Your task to perform on an android device: Open eBay Image 0: 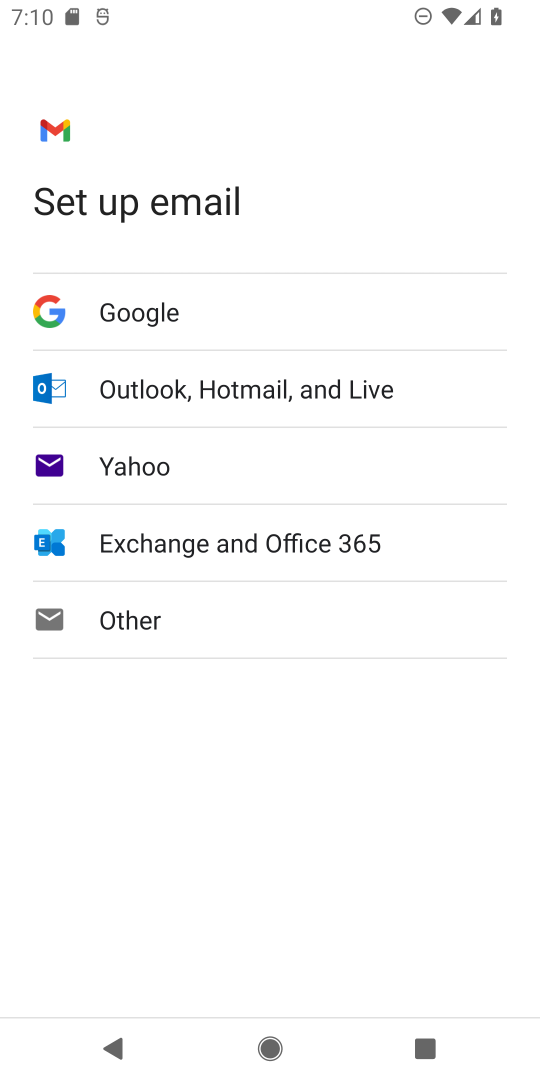
Step 0: press home button
Your task to perform on an android device: Open eBay Image 1: 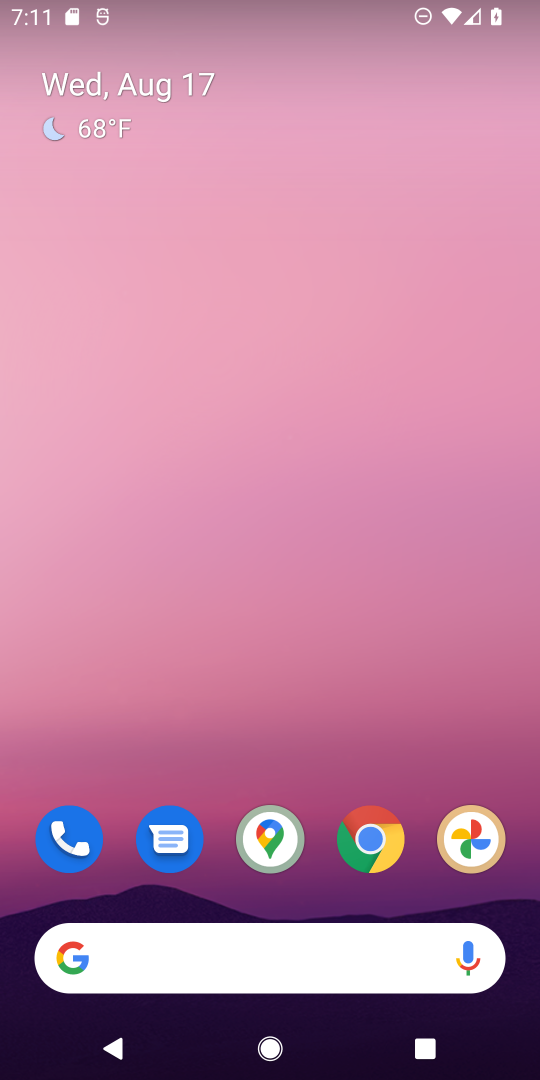
Step 1: click (371, 848)
Your task to perform on an android device: Open eBay Image 2: 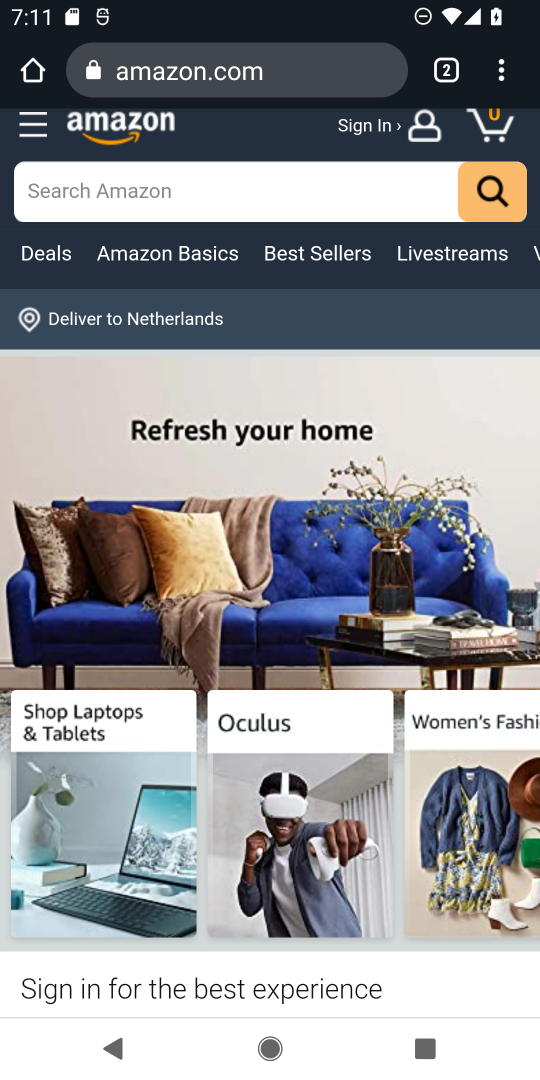
Step 2: click (486, 64)
Your task to perform on an android device: Open eBay Image 3: 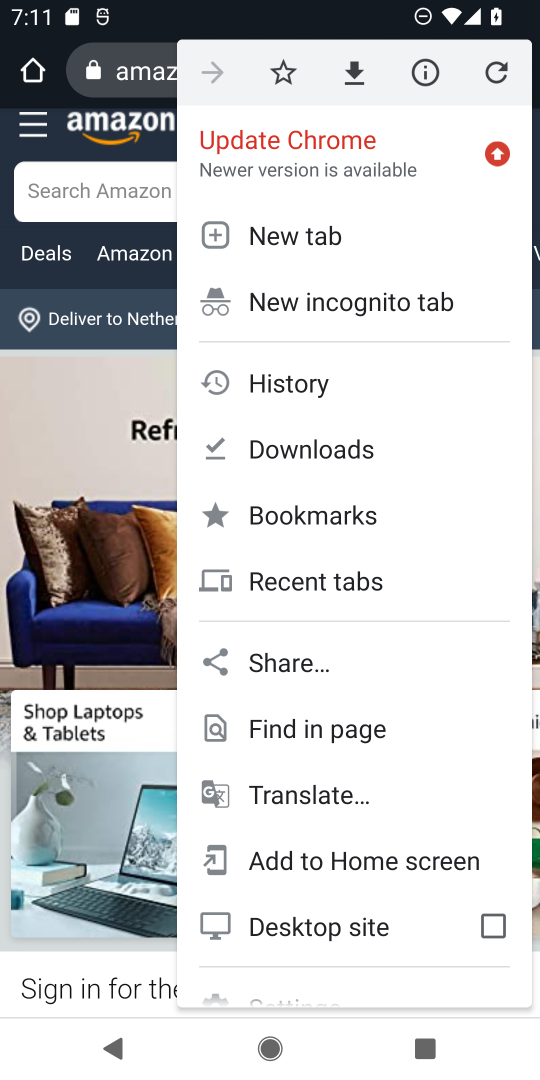
Step 3: click (27, 87)
Your task to perform on an android device: Open eBay Image 4: 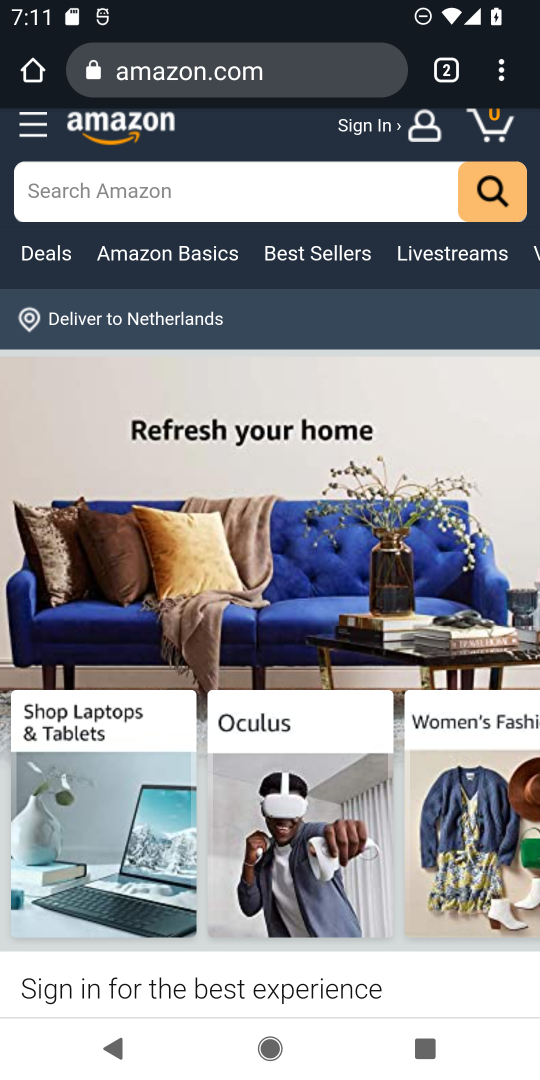
Step 4: click (27, 87)
Your task to perform on an android device: Open eBay Image 5: 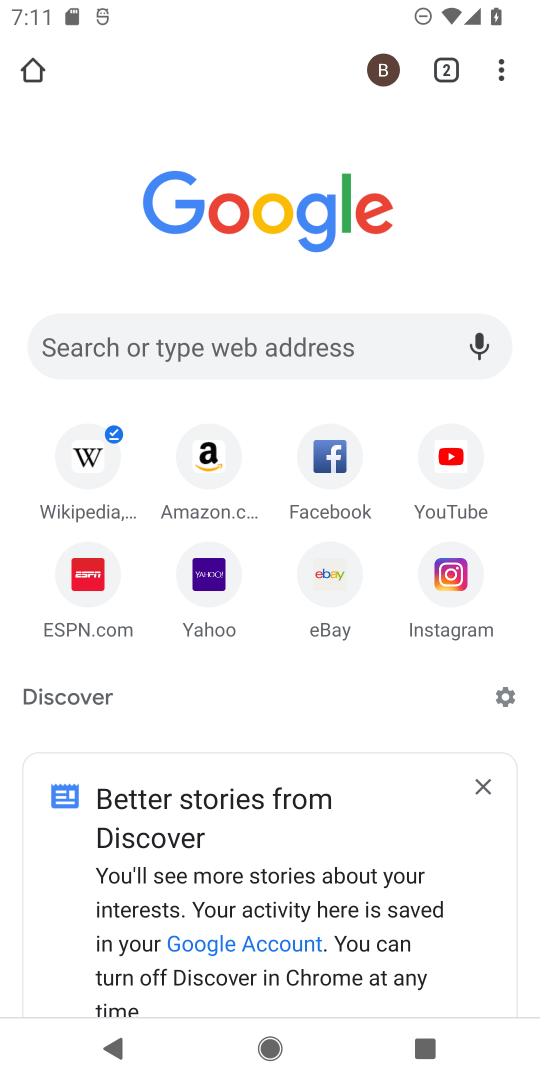
Step 5: click (337, 577)
Your task to perform on an android device: Open eBay Image 6: 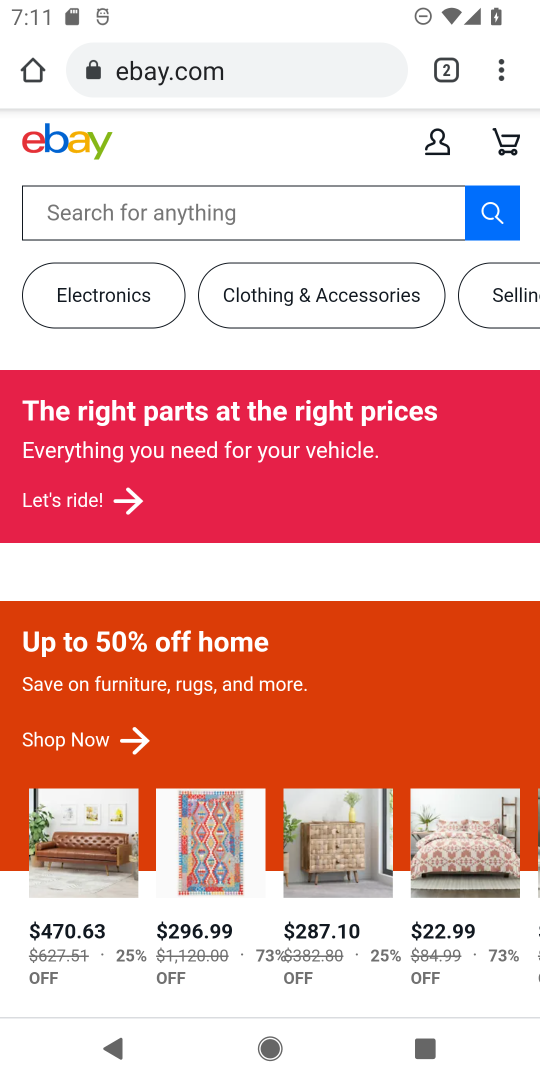
Step 6: task complete